Your task to perform on an android device: install app "Flipkart Online Shopping App" Image 0: 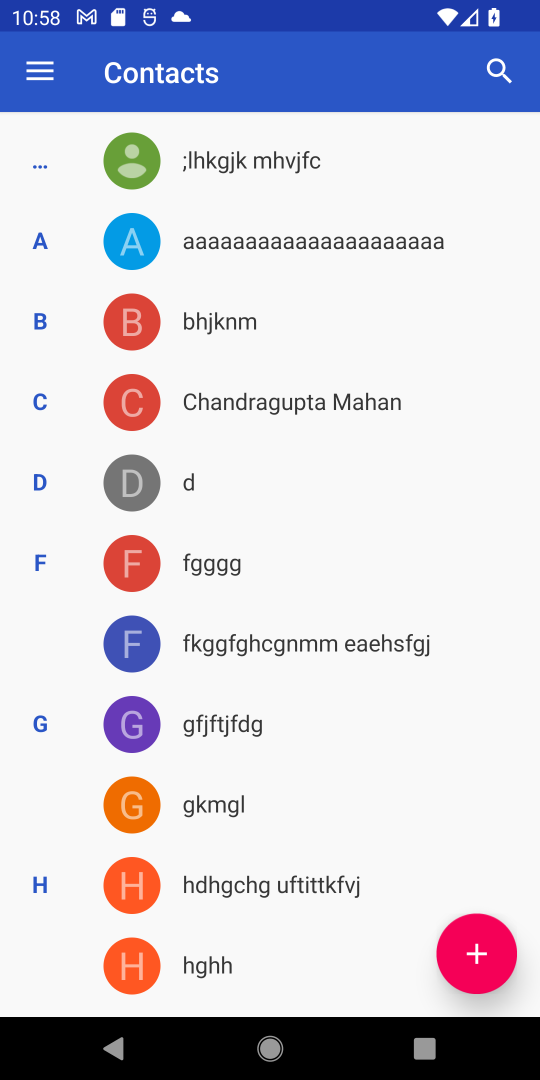
Step 0: press home button
Your task to perform on an android device: install app "Flipkart Online Shopping App" Image 1: 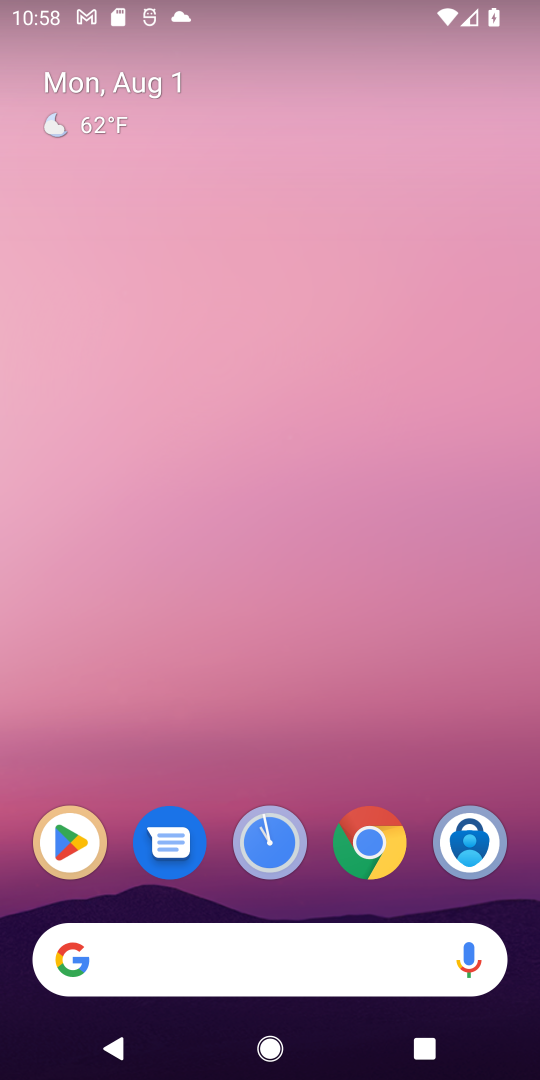
Step 1: click (77, 839)
Your task to perform on an android device: install app "Flipkart Online Shopping App" Image 2: 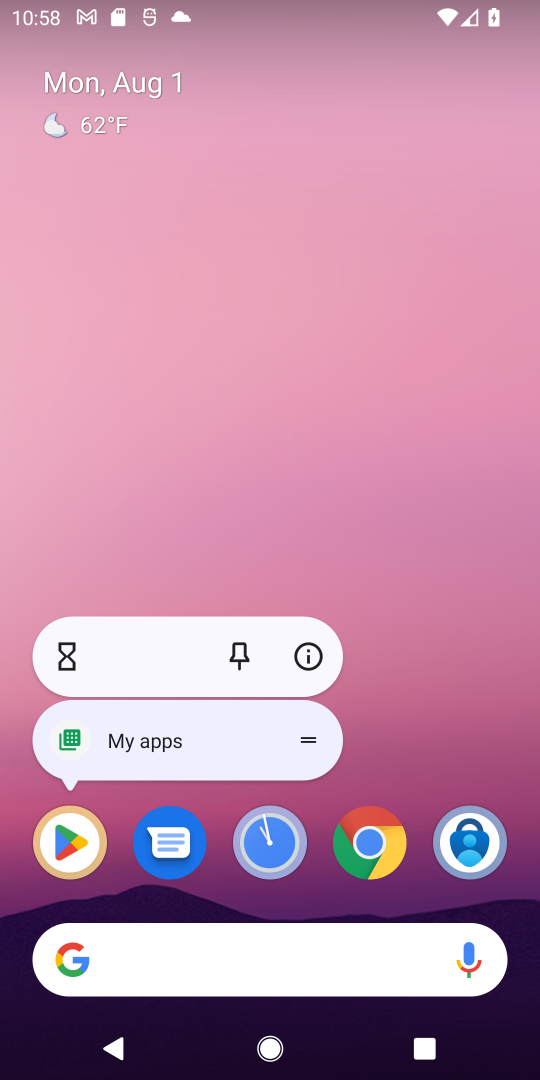
Step 2: click (48, 843)
Your task to perform on an android device: install app "Flipkart Online Shopping App" Image 3: 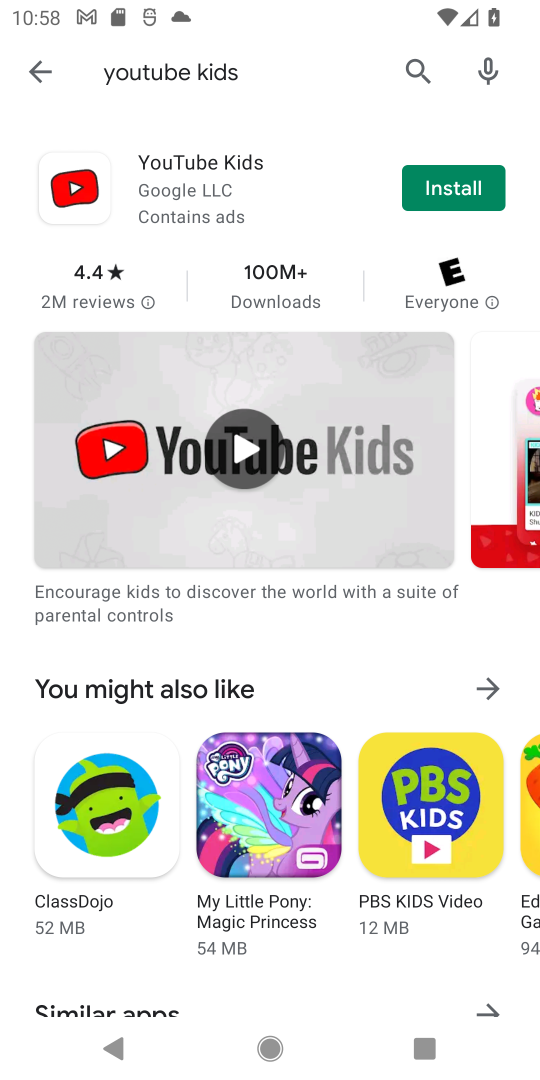
Step 3: click (415, 54)
Your task to perform on an android device: install app "Flipkart Online Shopping App" Image 4: 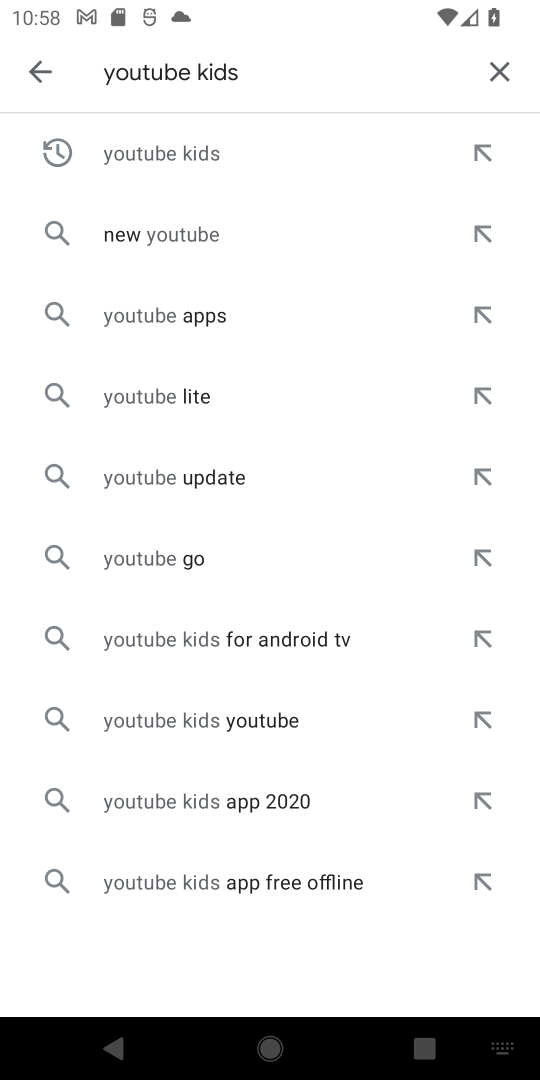
Step 4: click (495, 64)
Your task to perform on an android device: install app "Flipkart Online Shopping App" Image 5: 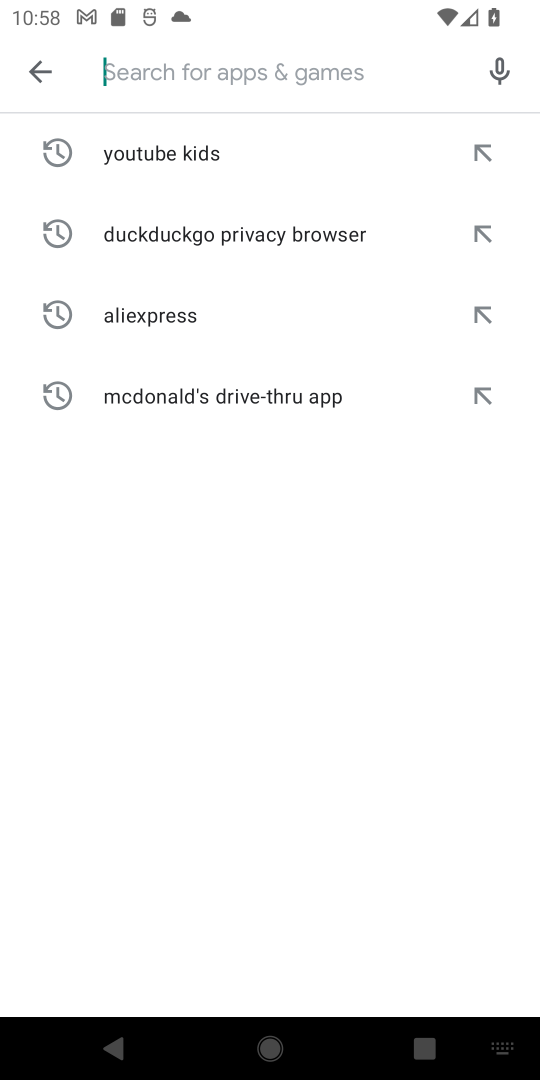
Step 5: click (199, 69)
Your task to perform on an android device: install app "Flipkart Online Shopping App" Image 6: 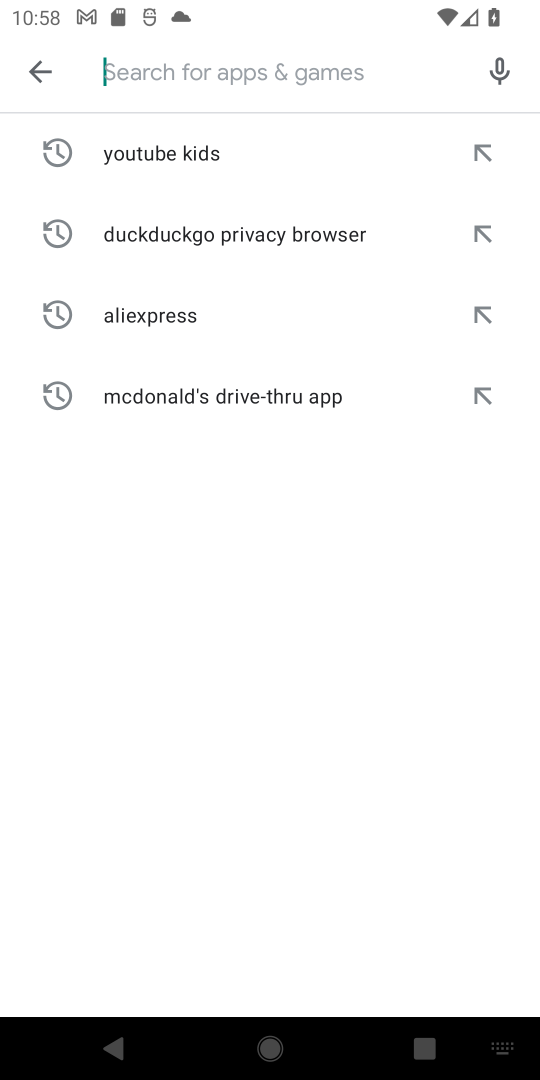
Step 6: type "Flipkart Online Shopping App"
Your task to perform on an android device: install app "Flipkart Online Shopping App" Image 7: 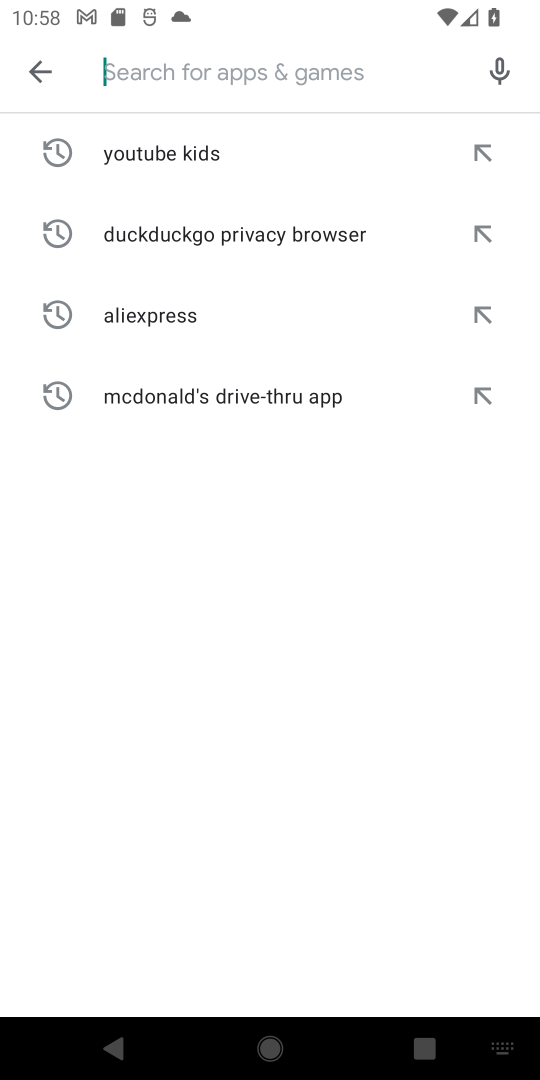
Step 7: click (186, 670)
Your task to perform on an android device: install app "Flipkart Online Shopping App" Image 8: 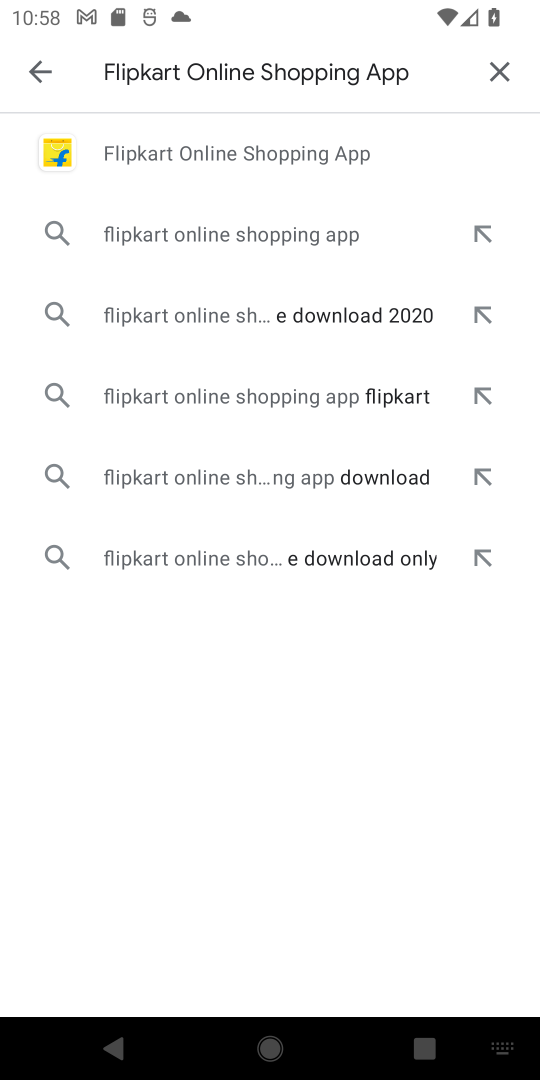
Step 8: click (204, 144)
Your task to perform on an android device: install app "Flipkart Online Shopping App" Image 9: 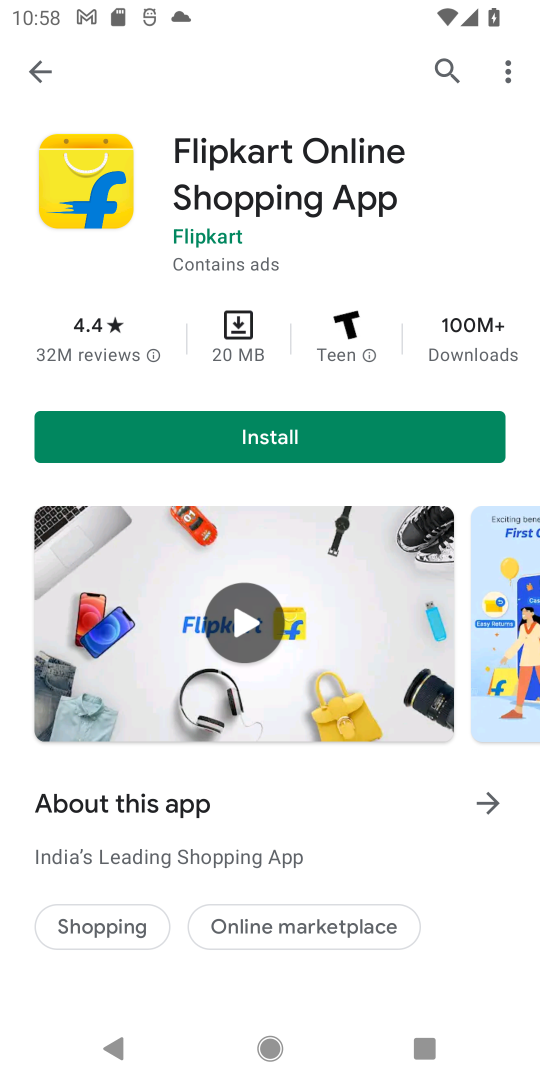
Step 9: click (262, 418)
Your task to perform on an android device: install app "Flipkart Online Shopping App" Image 10: 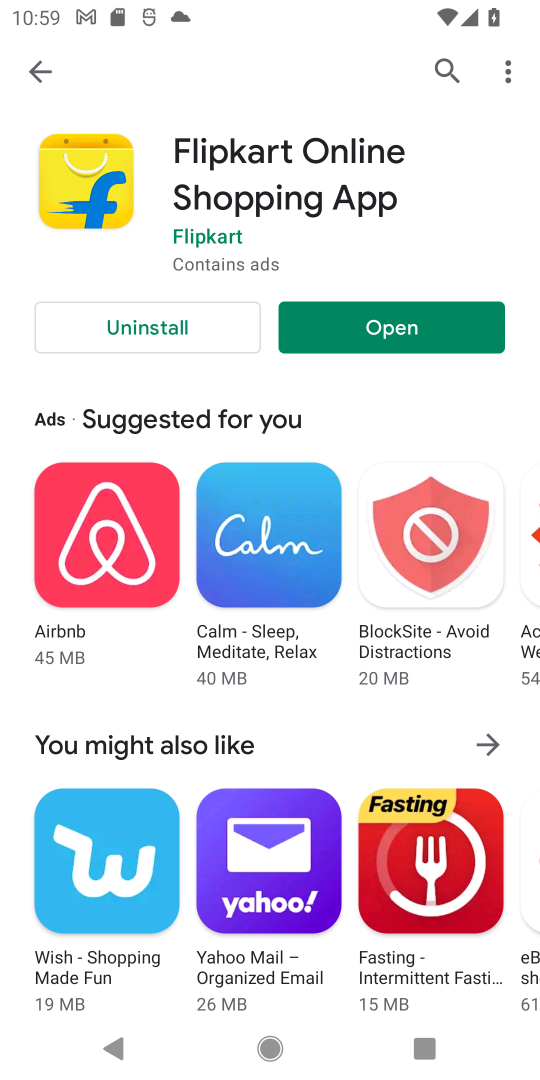
Step 10: task complete